Your task to perform on an android device: change the clock style Image 0: 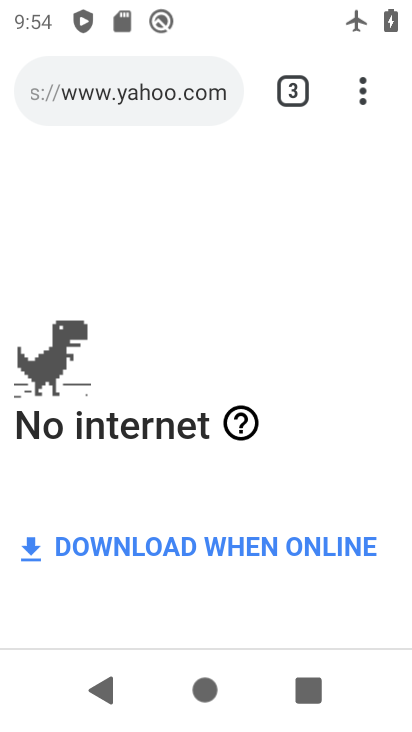
Step 0: press home button
Your task to perform on an android device: change the clock style Image 1: 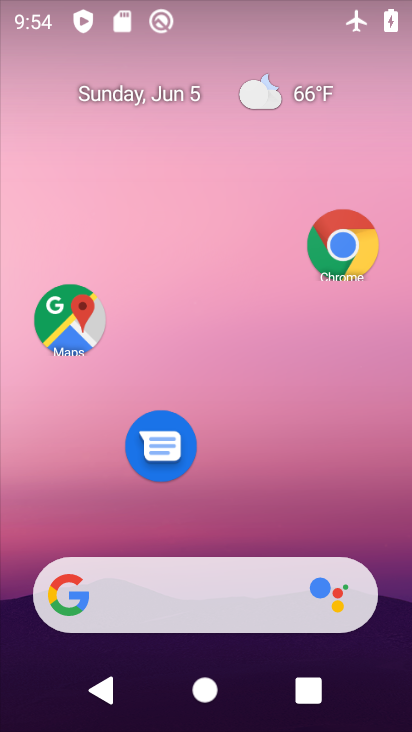
Step 1: drag from (227, 531) to (201, 112)
Your task to perform on an android device: change the clock style Image 2: 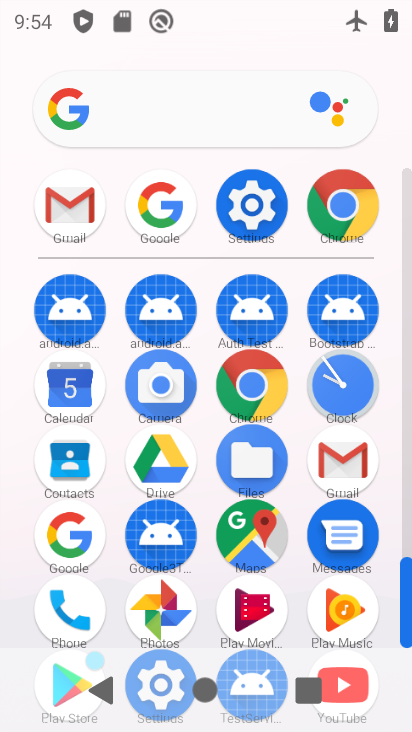
Step 2: click (324, 377)
Your task to perform on an android device: change the clock style Image 3: 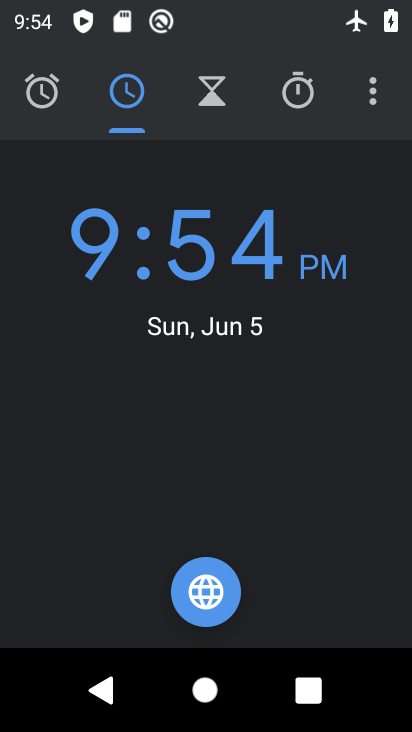
Step 3: click (373, 105)
Your task to perform on an android device: change the clock style Image 4: 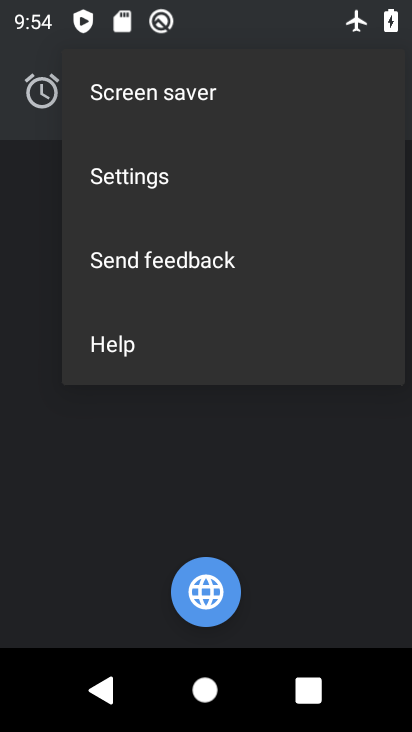
Step 4: click (142, 158)
Your task to perform on an android device: change the clock style Image 5: 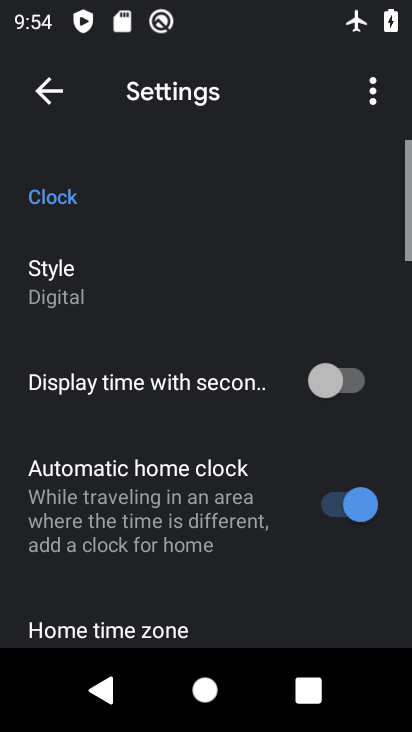
Step 5: click (136, 265)
Your task to perform on an android device: change the clock style Image 6: 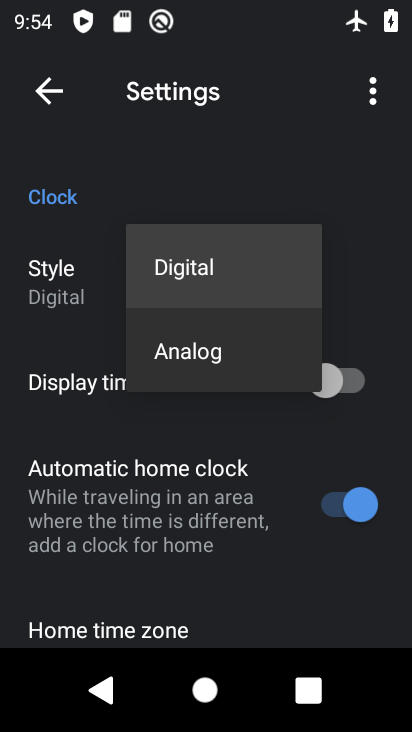
Step 6: click (176, 350)
Your task to perform on an android device: change the clock style Image 7: 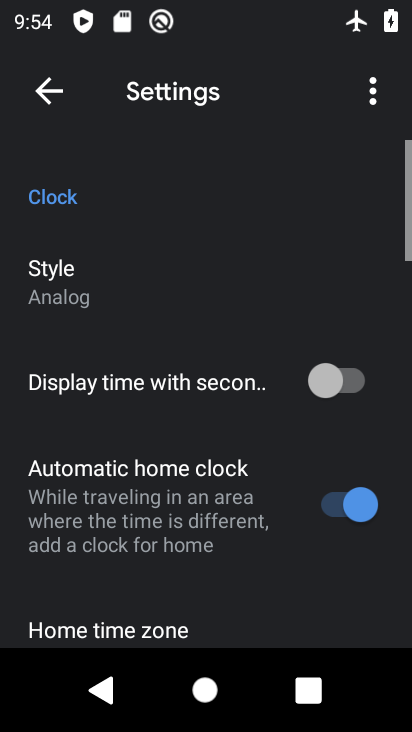
Step 7: task complete